Your task to perform on an android device: Open calendar and show me the fourth week of next month Image 0: 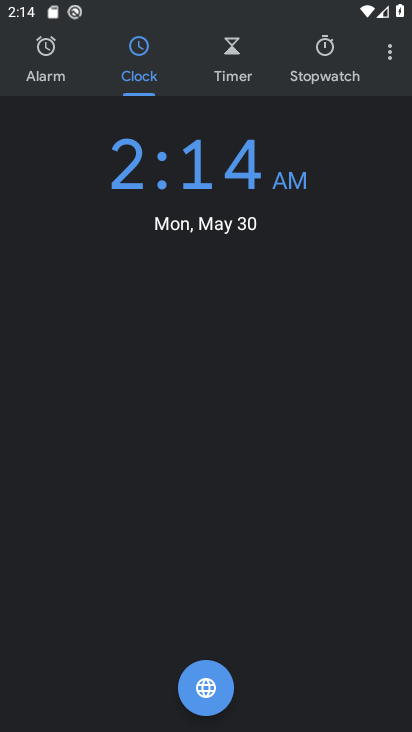
Step 0: press home button
Your task to perform on an android device: Open calendar and show me the fourth week of next month Image 1: 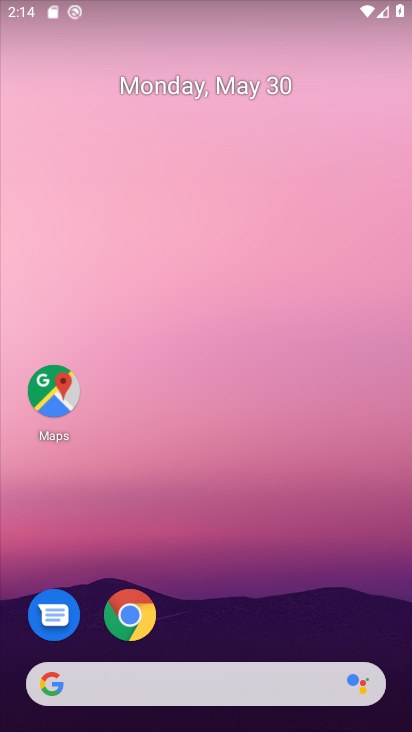
Step 1: drag from (228, 593) to (270, 51)
Your task to perform on an android device: Open calendar and show me the fourth week of next month Image 2: 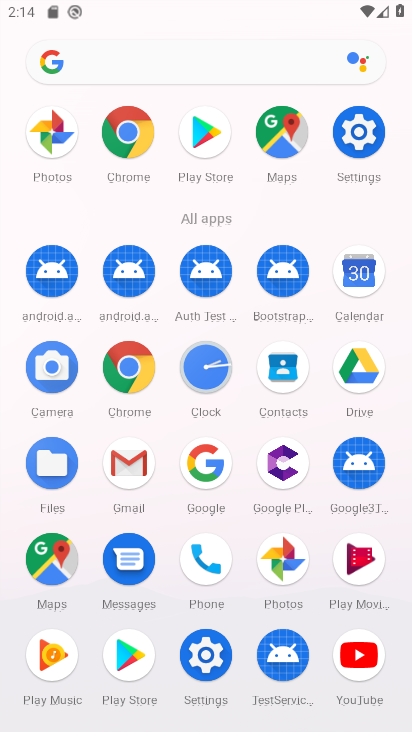
Step 2: click (349, 271)
Your task to perform on an android device: Open calendar and show me the fourth week of next month Image 3: 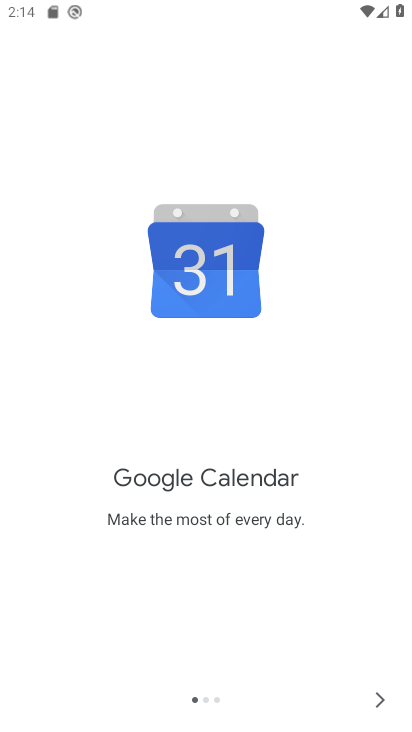
Step 3: click (374, 689)
Your task to perform on an android device: Open calendar and show me the fourth week of next month Image 4: 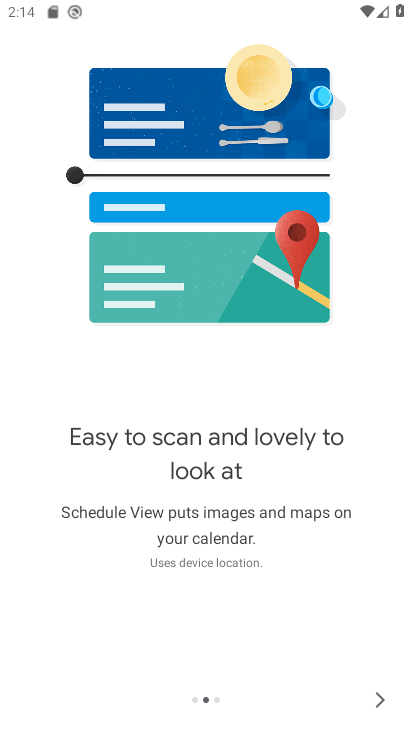
Step 4: click (374, 689)
Your task to perform on an android device: Open calendar and show me the fourth week of next month Image 5: 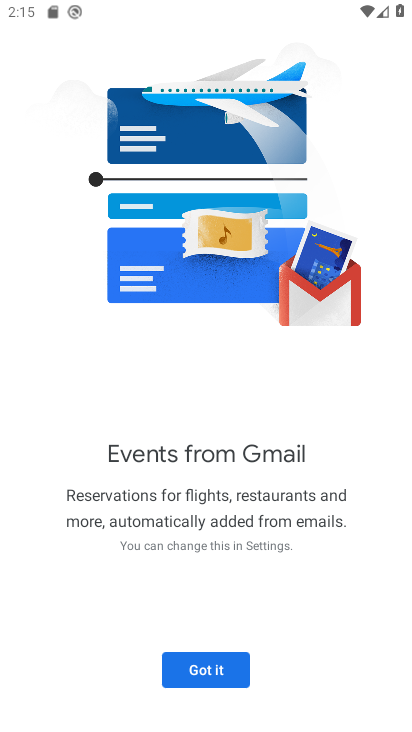
Step 5: click (238, 673)
Your task to perform on an android device: Open calendar and show me the fourth week of next month Image 6: 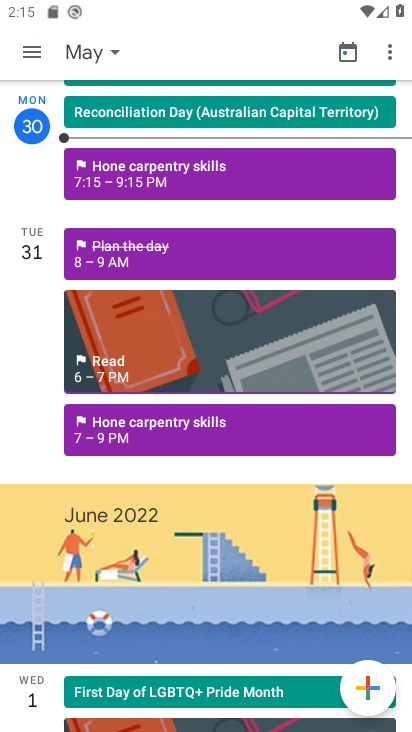
Step 6: click (26, 46)
Your task to perform on an android device: Open calendar and show me the fourth week of next month Image 7: 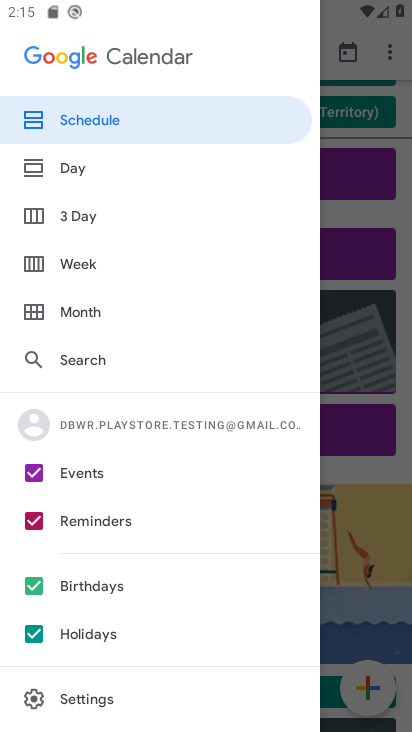
Step 7: click (35, 260)
Your task to perform on an android device: Open calendar and show me the fourth week of next month Image 8: 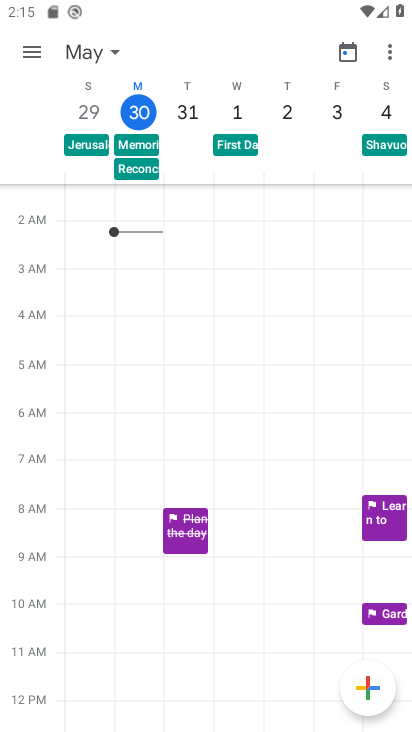
Step 8: task complete